Your task to perform on an android device: toggle javascript in the chrome app Image 0: 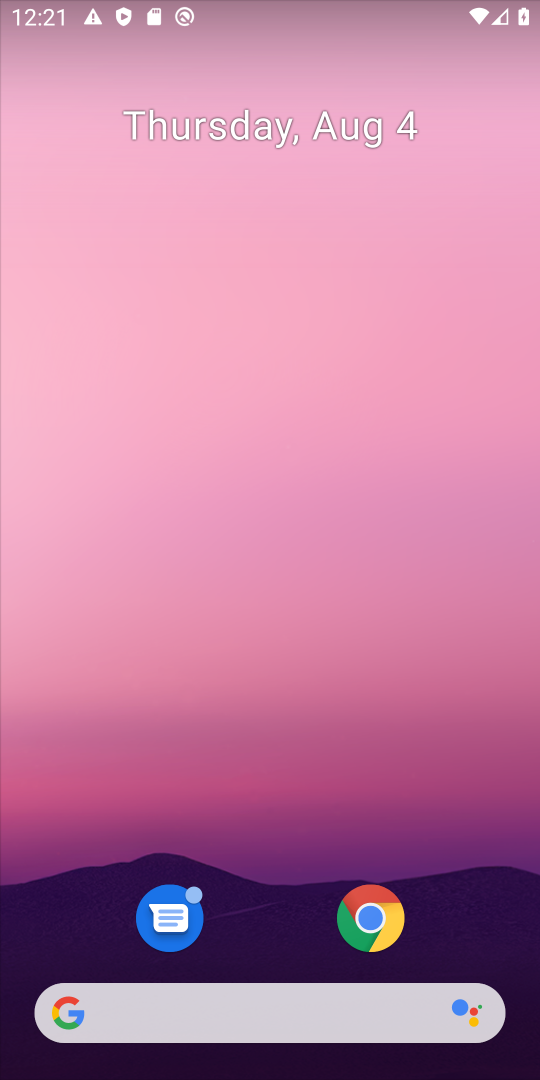
Step 0: click (334, 951)
Your task to perform on an android device: toggle javascript in the chrome app Image 1: 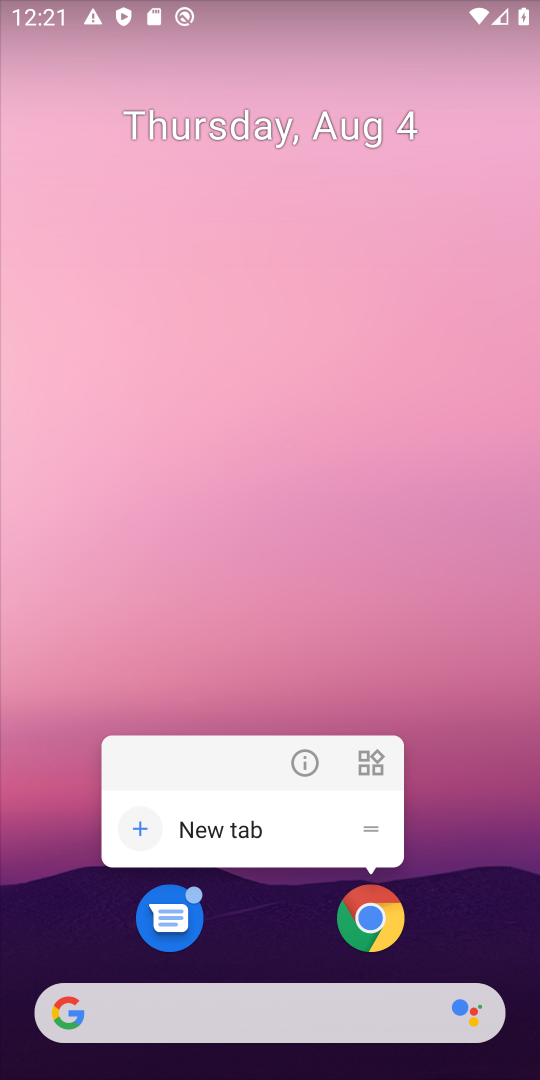
Step 1: click (334, 951)
Your task to perform on an android device: toggle javascript in the chrome app Image 2: 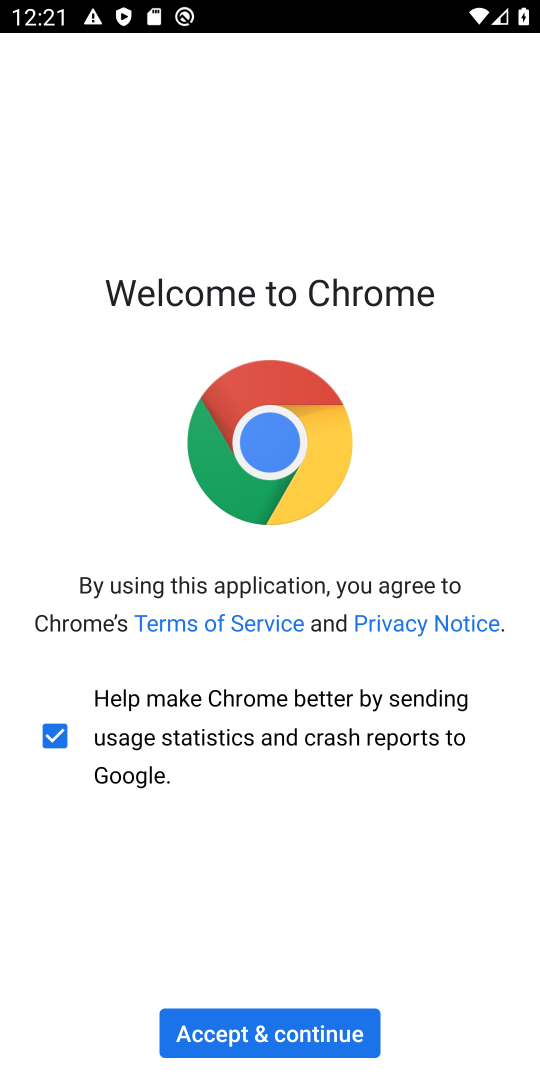
Step 2: click (332, 1029)
Your task to perform on an android device: toggle javascript in the chrome app Image 3: 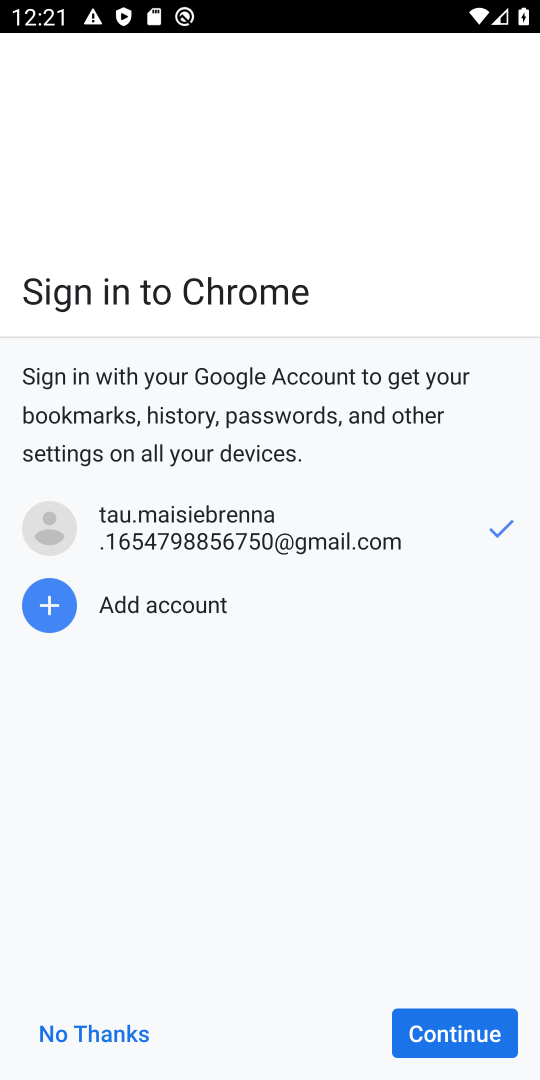
Step 3: click (428, 1014)
Your task to perform on an android device: toggle javascript in the chrome app Image 4: 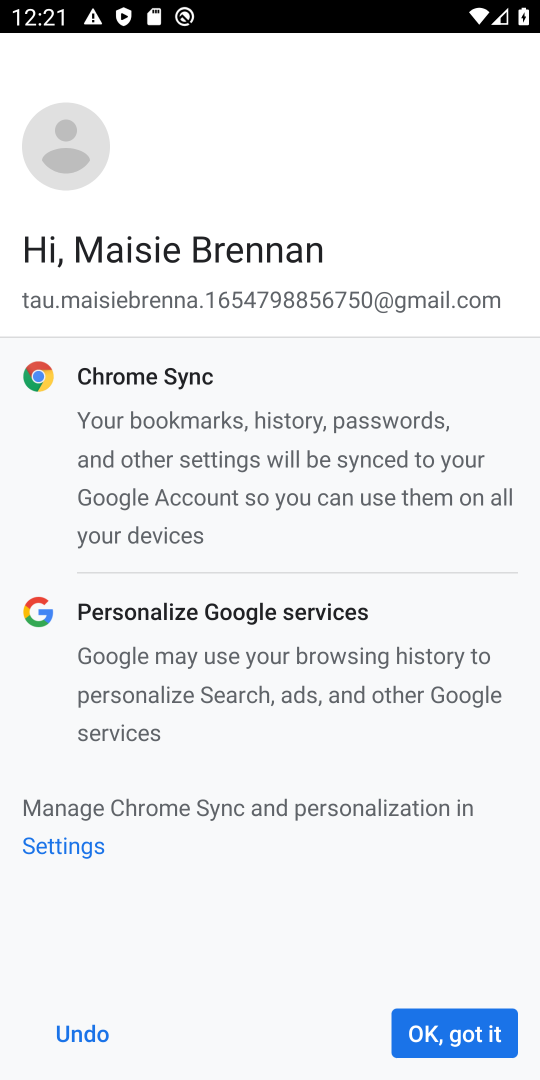
Step 4: click (442, 1017)
Your task to perform on an android device: toggle javascript in the chrome app Image 5: 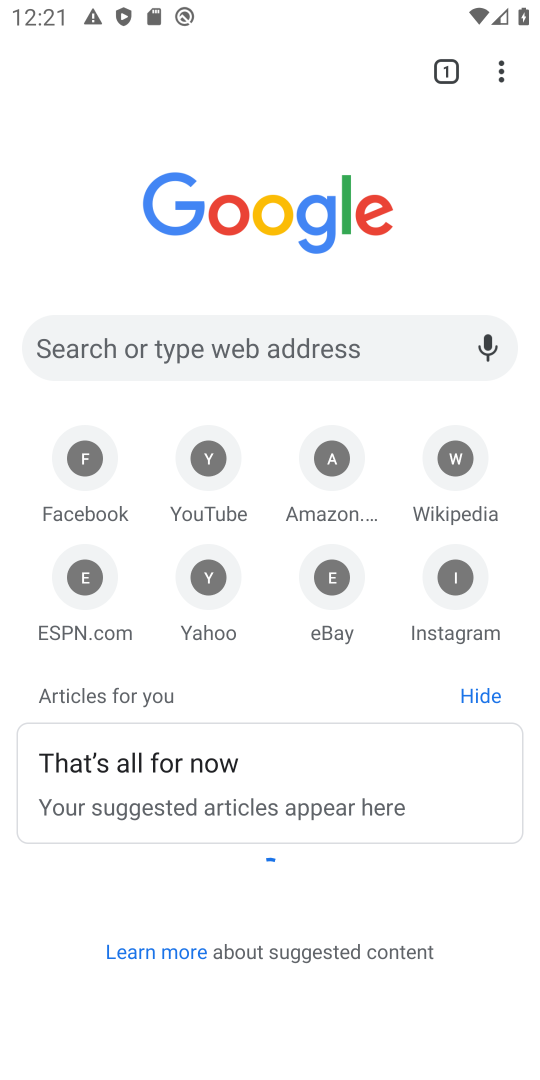
Step 5: click (491, 60)
Your task to perform on an android device: toggle javascript in the chrome app Image 6: 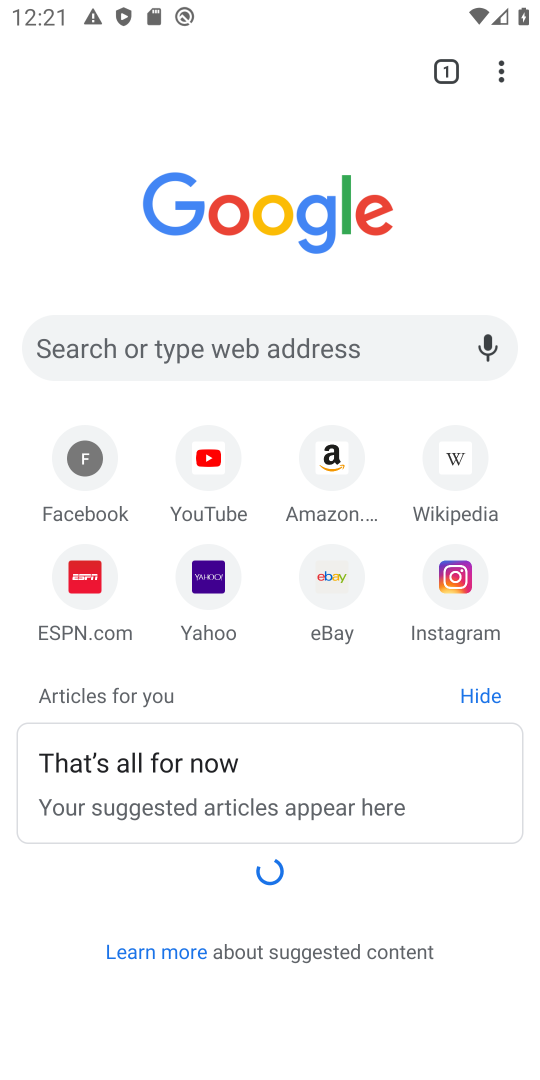
Step 6: drag from (503, 67) to (291, 582)
Your task to perform on an android device: toggle javascript in the chrome app Image 7: 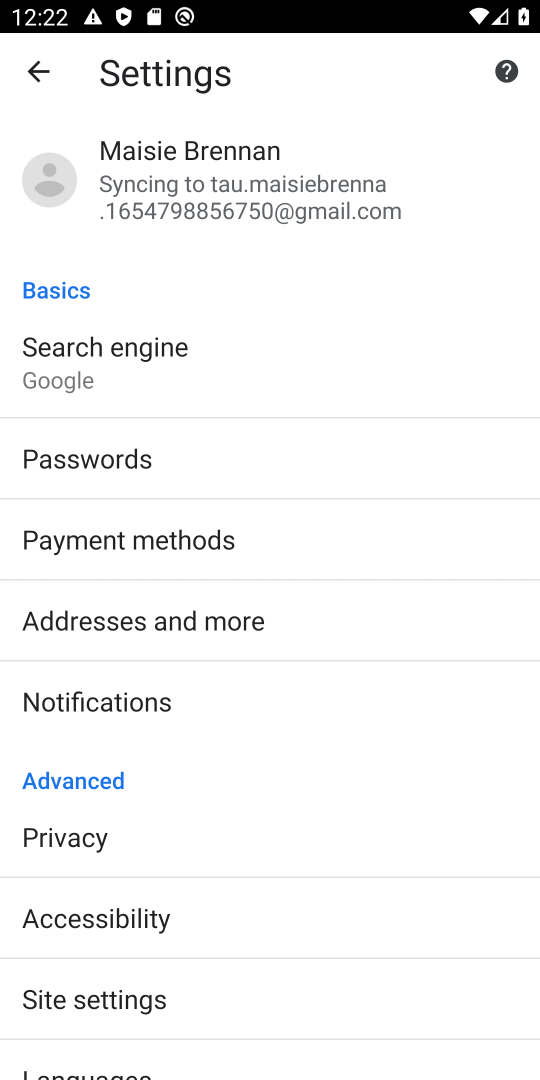
Step 7: drag from (195, 946) to (242, 616)
Your task to perform on an android device: toggle javascript in the chrome app Image 8: 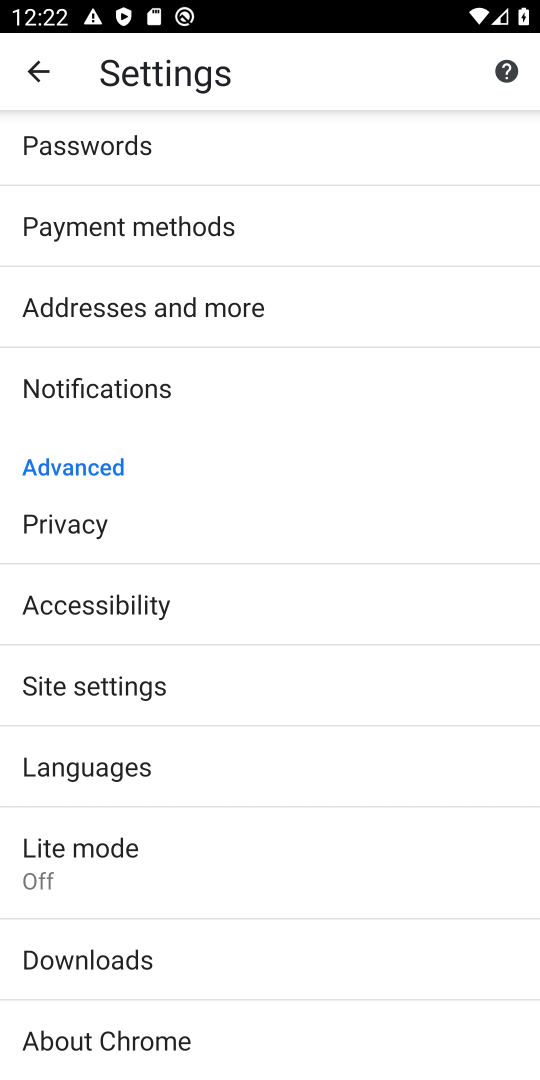
Step 8: click (200, 705)
Your task to perform on an android device: toggle javascript in the chrome app Image 9: 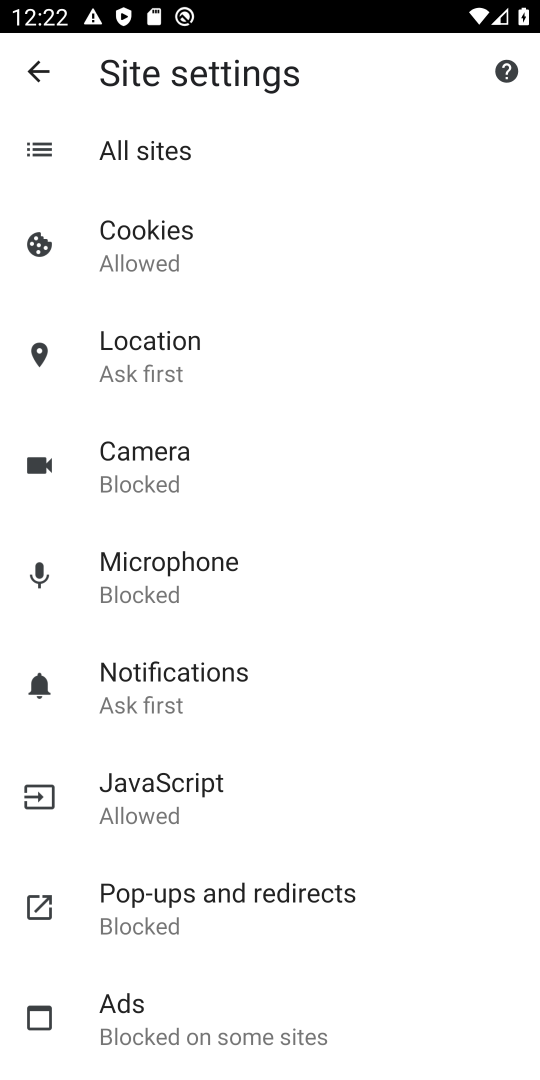
Step 9: click (215, 752)
Your task to perform on an android device: toggle javascript in the chrome app Image 10: 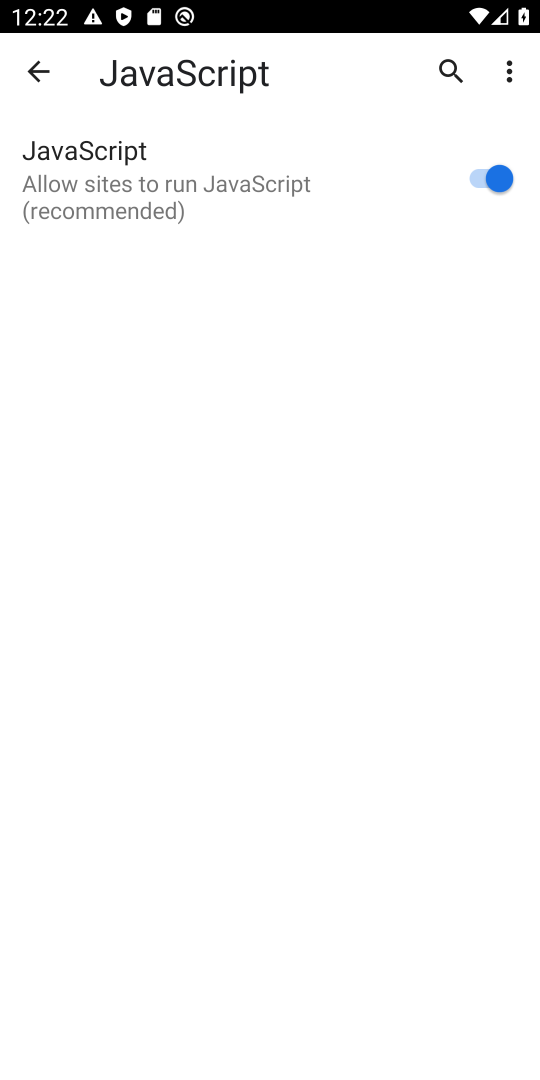
Step 10: task complete